Your task to perform on an android device: Search for pizza restaurants on Maps Image 0: 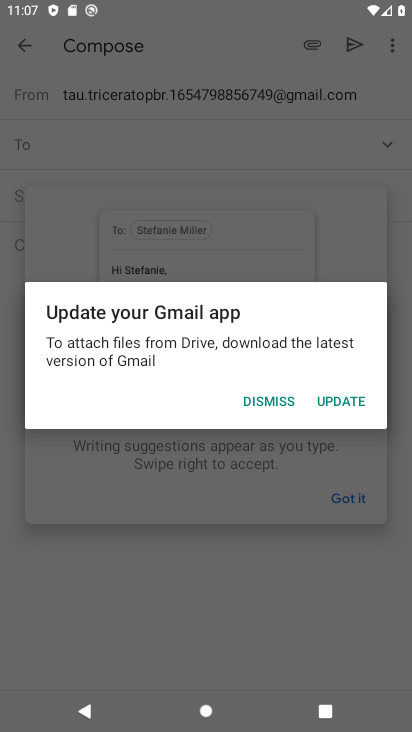
Step 0: press home button
Your task to perform on an android device: Search for pizza restaurants on Maps Image 1: 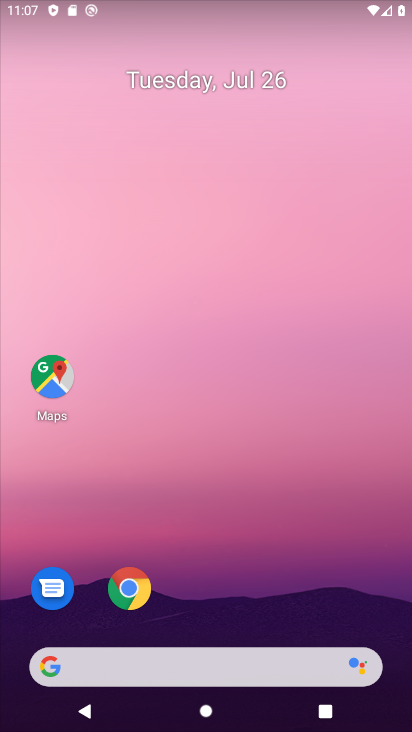
Step 1: click (64, 375)
Your task to perform on an android device: Search for pizza restaurants on Maps Image 2: 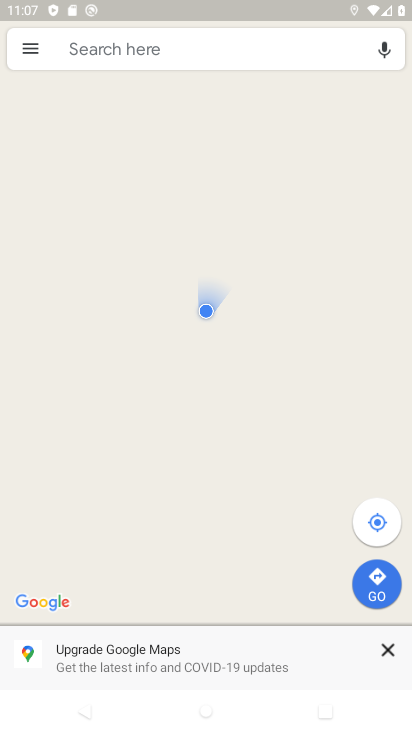
Step 2: click (153, 43)
Your task to perform on an android device: Search for pizza restaurants on Maps Image 3: 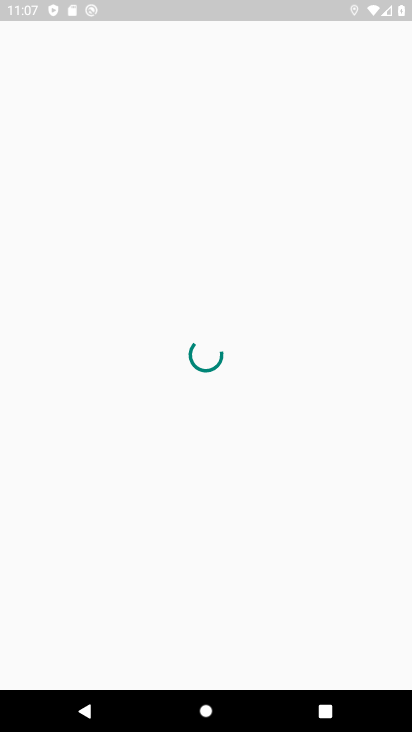
Step 3: click (175, 53)
Your task to perform on an android device: Search for pizza restaurants on Maps Image 4: 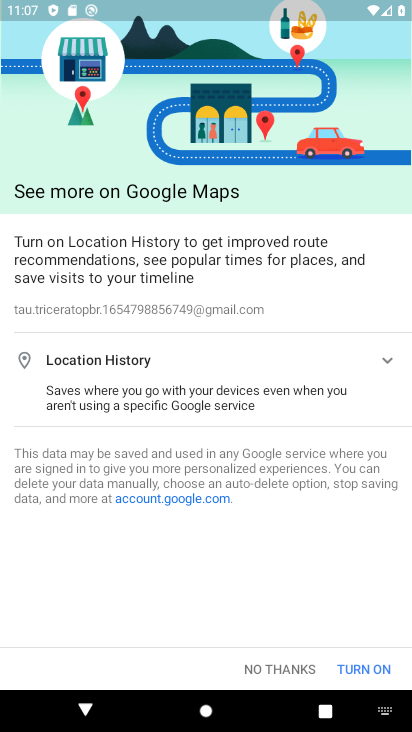
Step 4: click (281, 671)
Your task to perform on an android device: Search for pizza restaurants on Maps Image 5: 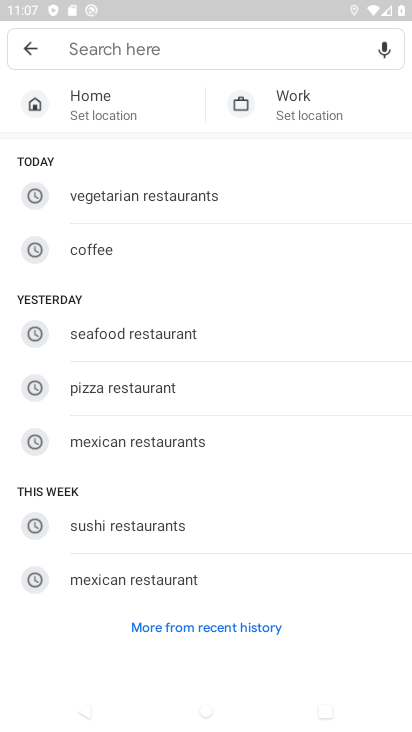
Step 5: click (134, 389)
Your task to perform on an android device: Search for pizza restaurants on Maps Image 6: 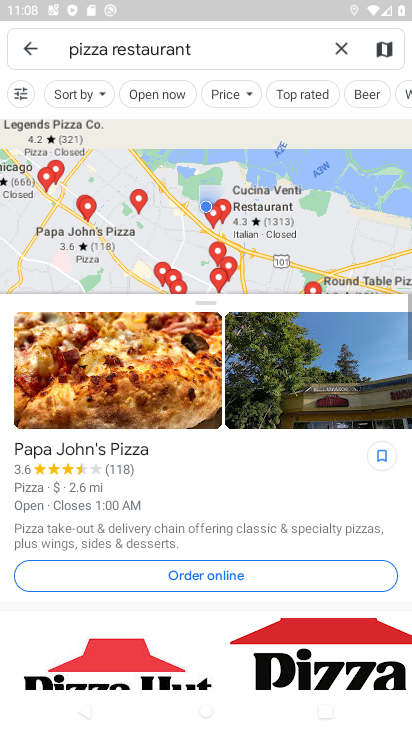
Step 6: task complete